Your task to perform on an android device: all mails in gmail Image 0: 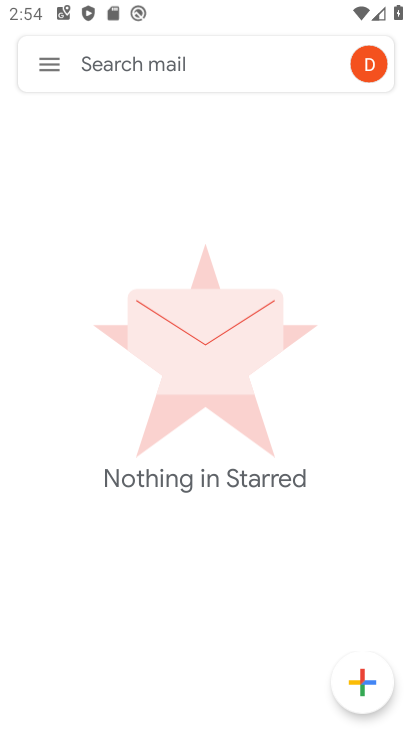
Step 0: press home button
Your task to perform on an android device: all mails in gmail Image 1: 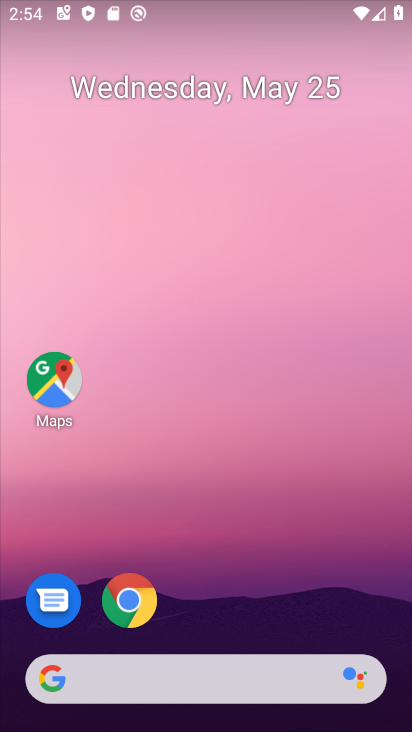
Step 1: drag from (43, 456) to (141, 108)
Your task to perform on an android device: all mails in gmail Image 2: 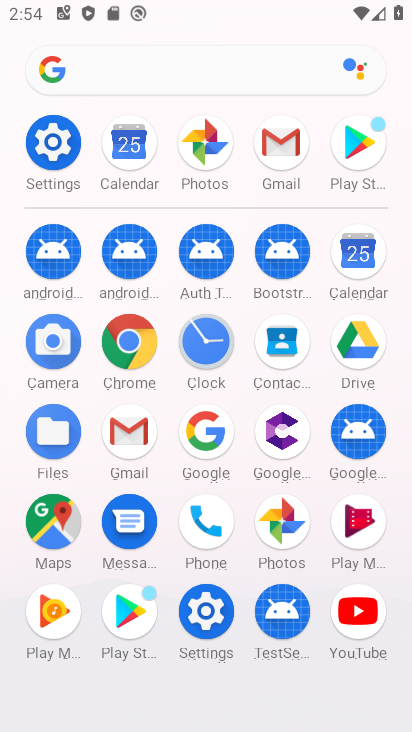
Step 2: click (142, 439)
Your task to perform on an android device: all mails in gmail Image 3: 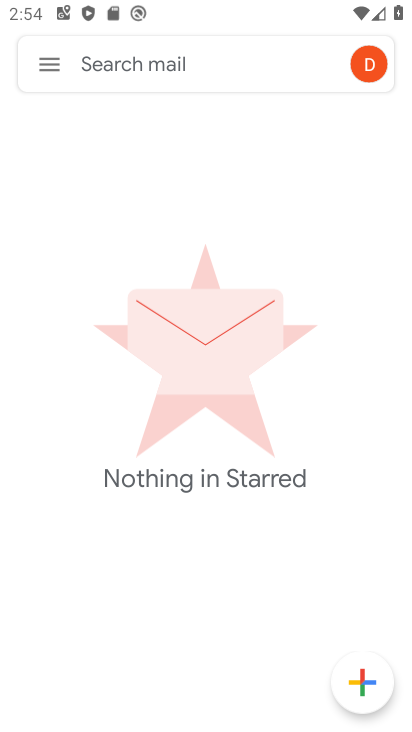
Step 3: click (51, 59)
Your task to perform on an android device: all mails in gmail Image 4: 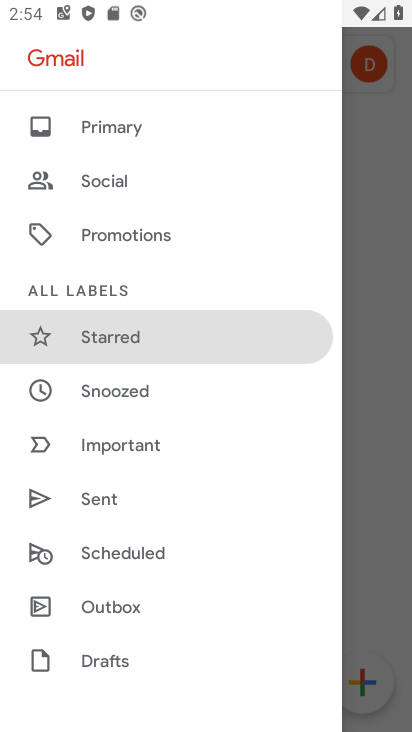
Step 4: drag from (92, 639) to (168, 251)
Your task to perform on an android device: all mails in gmail Image 5: 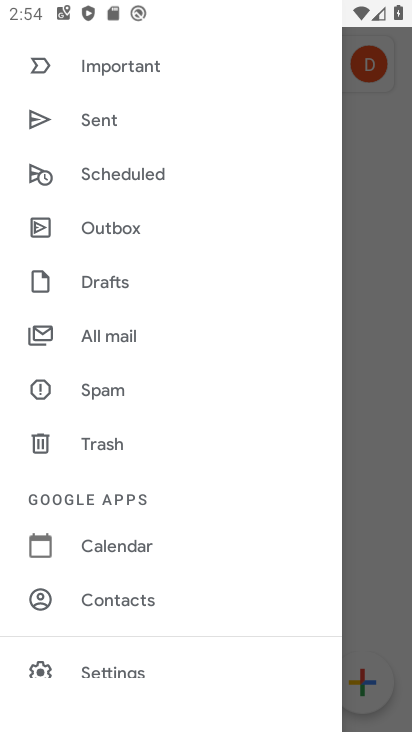
Step 5: drag from (141, 162) to (129, 563)
Your task to perform on an android device: all mails in gmail Image 6: 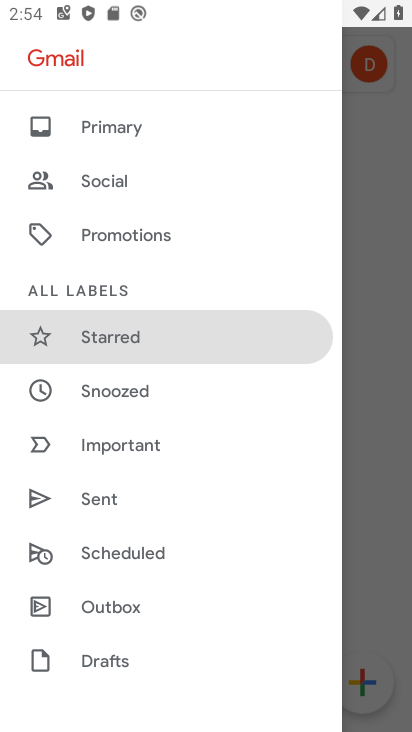
Step 6: drag from (128, 631) to (210, 258)
Your task to perform on an android device: all mails in gmail Image 7: 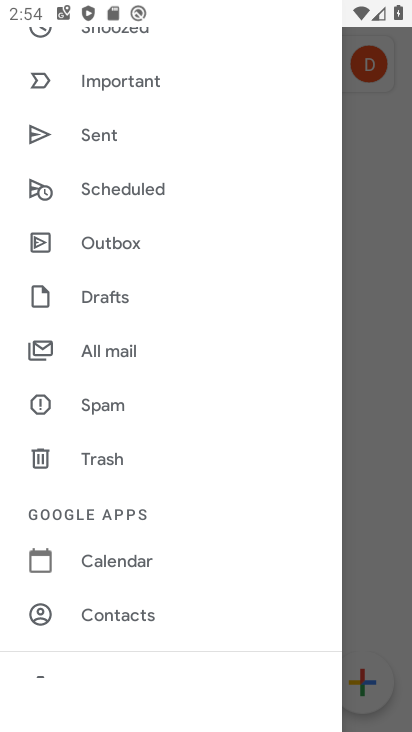
Step 7: click (103, 352)
Your task to perform on an android device: all mails in gmail Image 8: 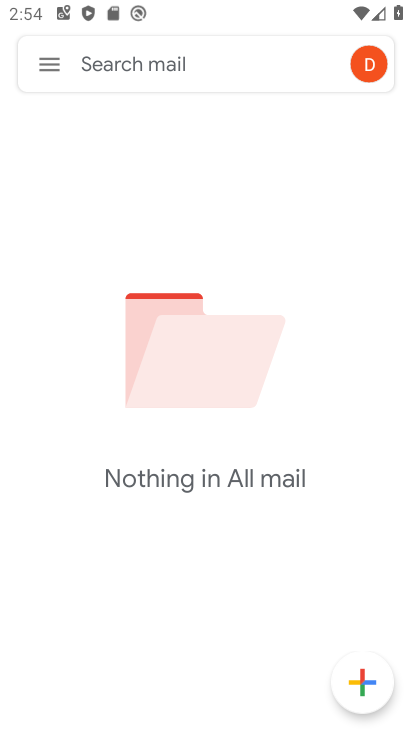
Step 8: task complete